Your task to perform on an android device: Find coffee shops on Maps Image 0: 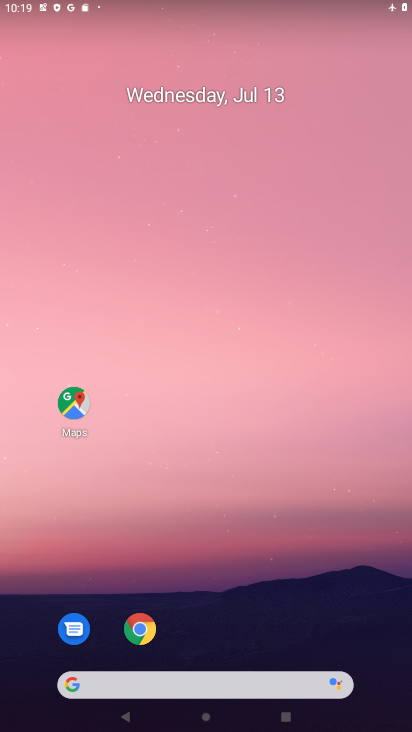
Step 0: click (83, 414)
Your task to perform on an android device: Find coffee shops on Maps Image 1: 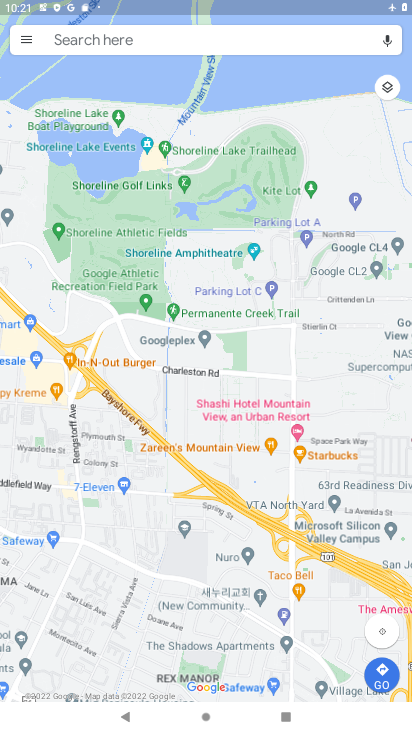
Step 1: click (184, 45)
Your task to perform on an android device: Find coffee shops on Maps Image 2: 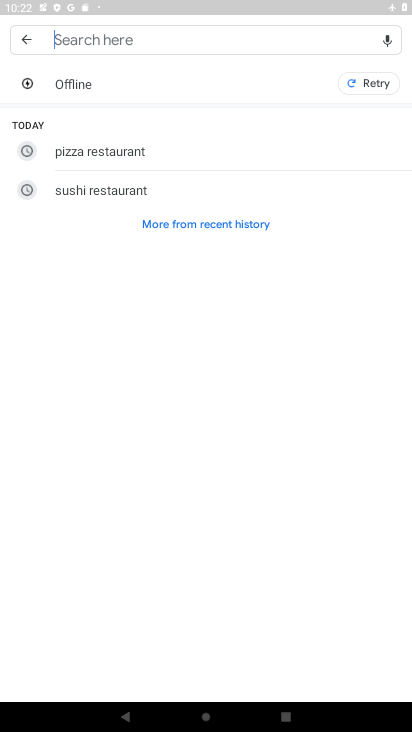
Step 2: task complete